Your task to perform on an android device: Open notification settings Image 0: 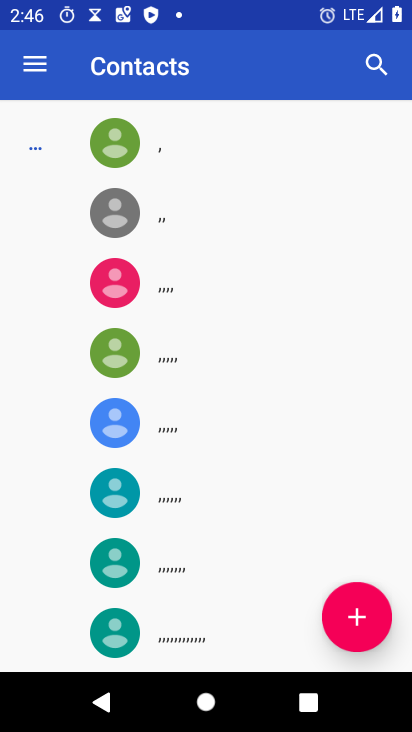
Step 0: press back button
Your task to perform on an android device: Open notification settings Image 1: 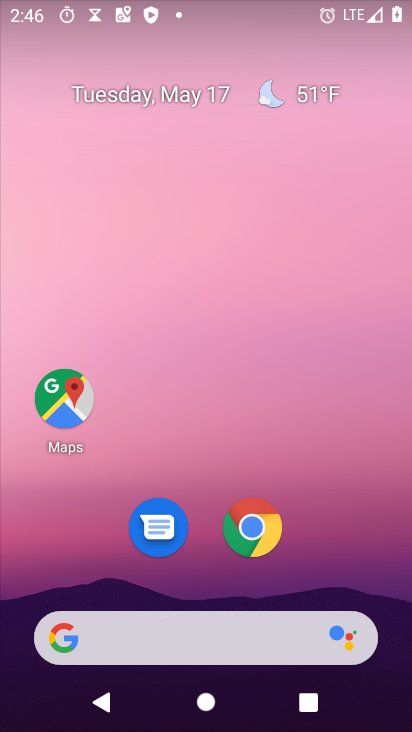
Step 1: drag from (332, 547) to (196, 94)
Your task to perform on an android device: Open notification settings Image 2: 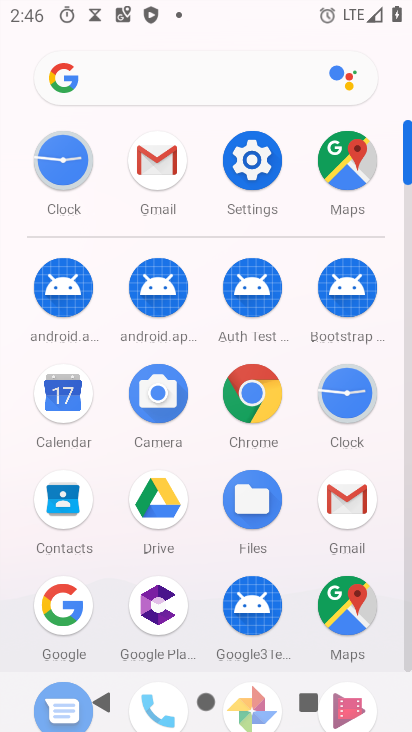
Step 2: click (250, 158)
Your task to perform on an android device: Open notification settings Image 3: 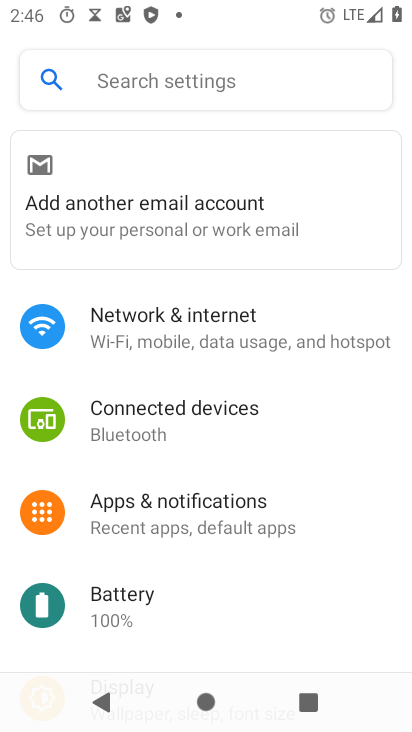
Step 3: click (197, 495)
Your task to perform on an android device: Open notification settings Image 4: 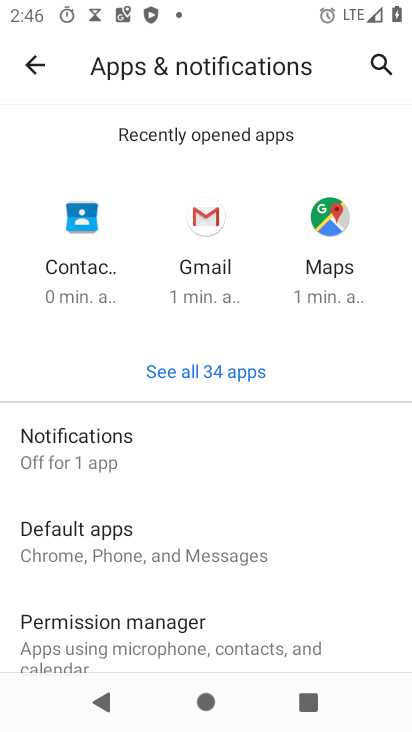
Step 4: click (101, 435)
Your task to perform on an android device: Open notification settings Image 5: 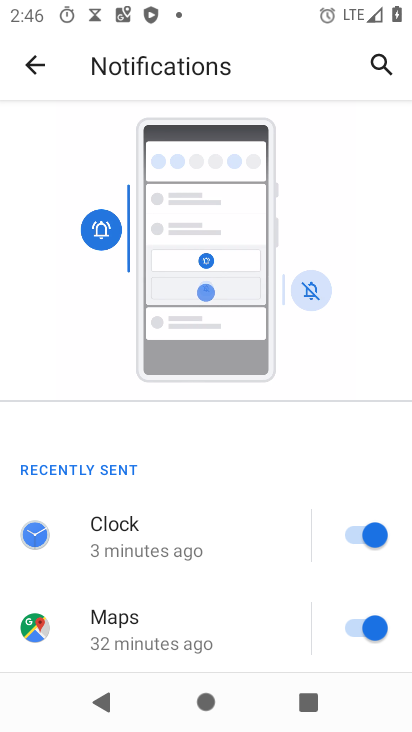
Step 5: task complete